Your task to perform on an android device: Do I have any events this weekend? Image 0: 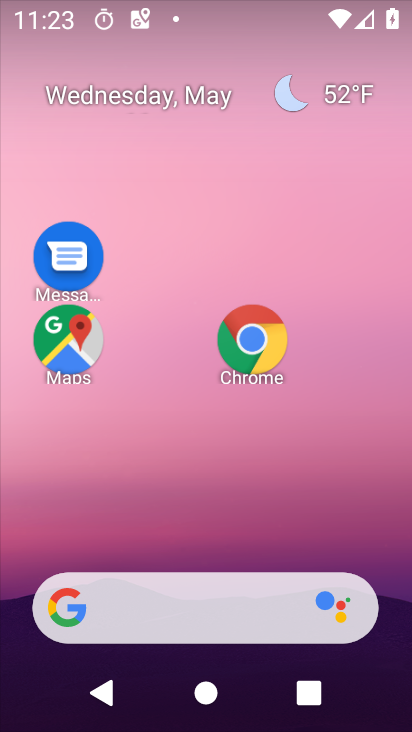
Step 0: drag from (214, 523) to (205, 71)
Your task to perform on an android device: Do I have any events this weekend? Image 1: 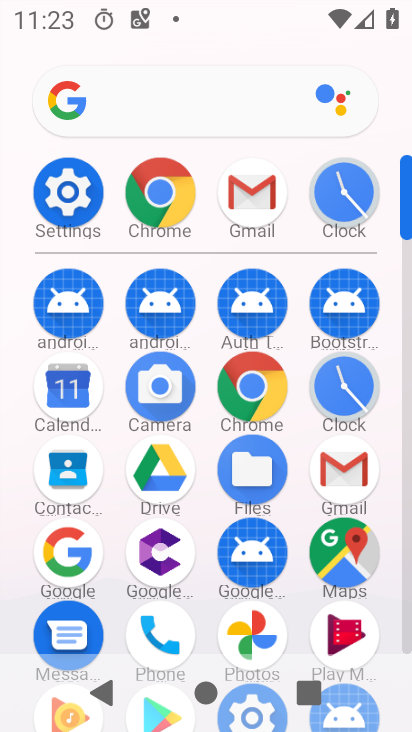
Step 1: click (63, 395)
Your task to perform on an android device: Do I have any events this weekend? Image 2: 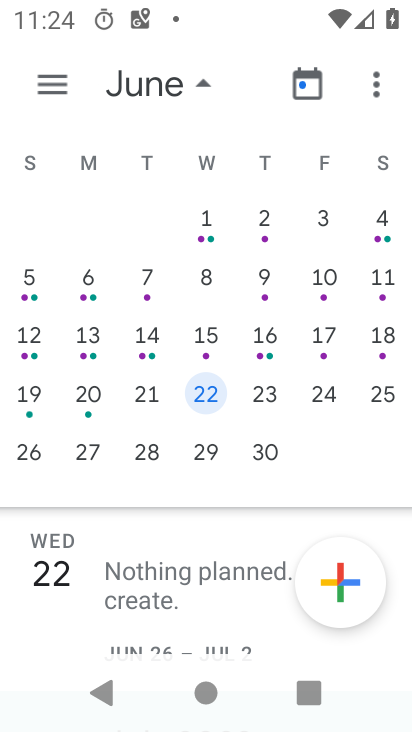
Step 2: drag from (54, 486) to (409, 448)
Your task to perform on an android device: Do I have any events this weekend? Image 3: 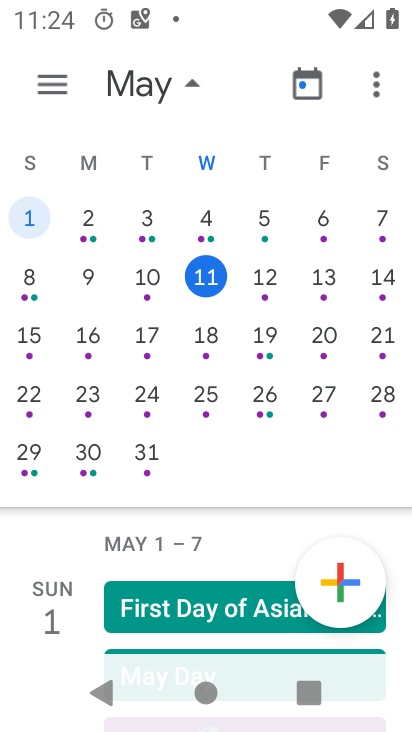
Step 3: click (216, 336)
Your task to perform on an android device: Do I have any events this weekend? Image 4: 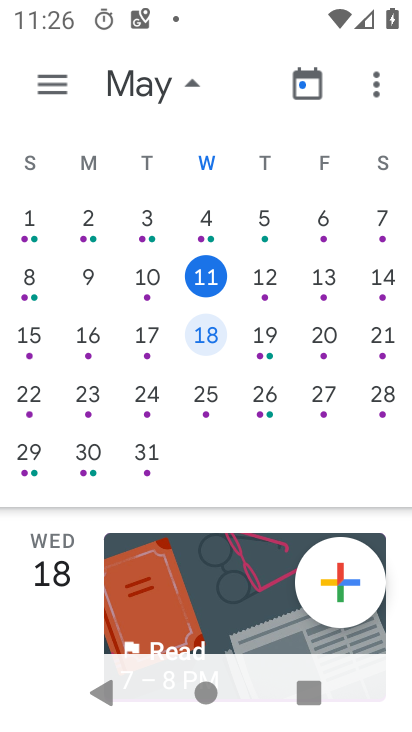
Step 4: task complete